Your task to perform on an android device: Open Android settings Image 0: 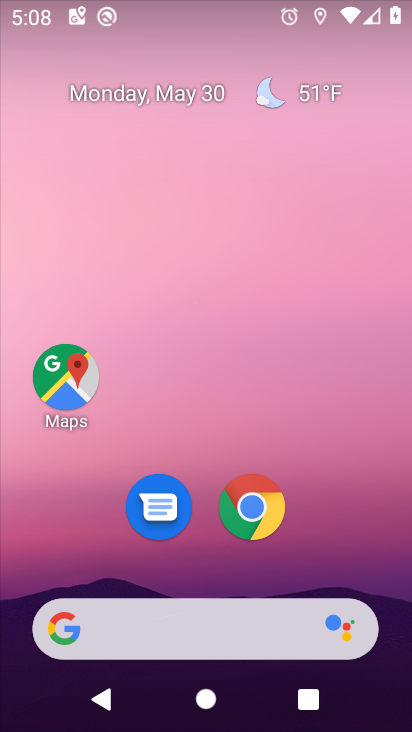
Step 0: press home button
Your task to perform on an android device: Open Android settings Image 1: 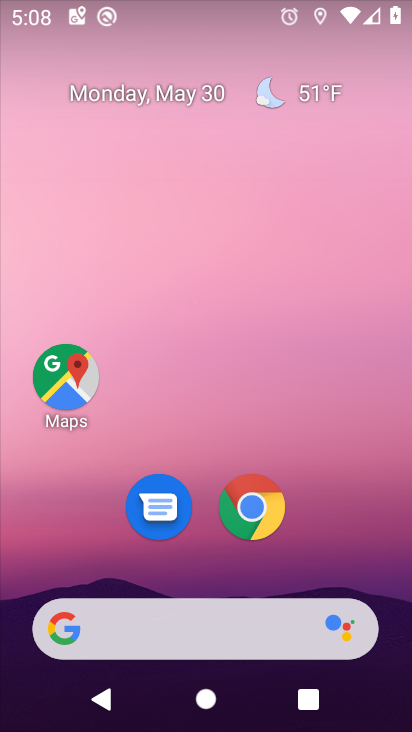
Step 1: drag from (341, 541) to (341, 169)
Your task to perform on an android device: Open Android settings Image 2: 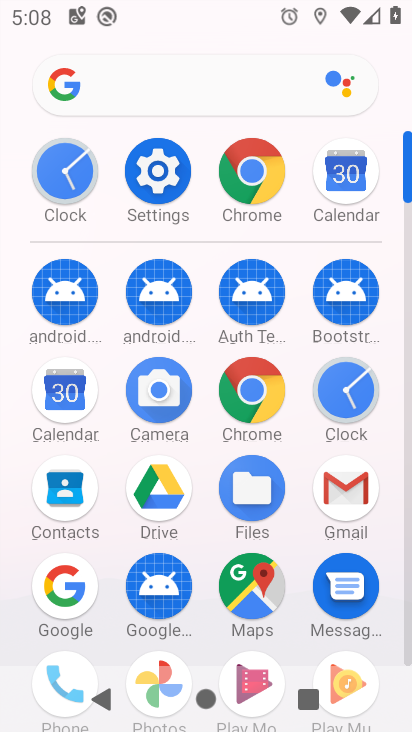
Step 2: click (172, 181)
Your task to perform on an android device: Open Android settings Image 3: 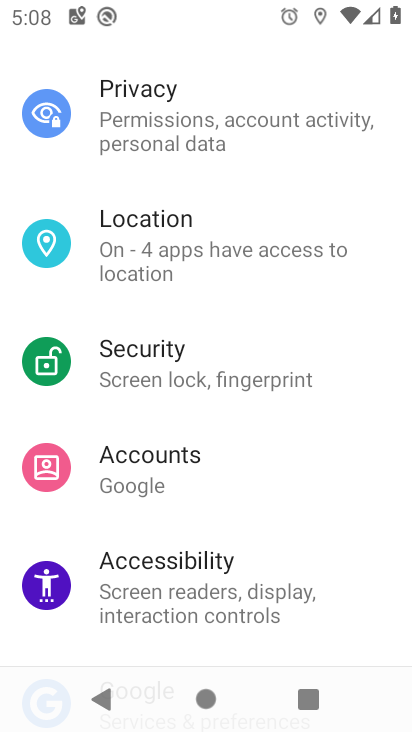
Step 3: drag from (209, 599) to (247, 115)
Your task to perform on an android device: Open Android settings Image 4: 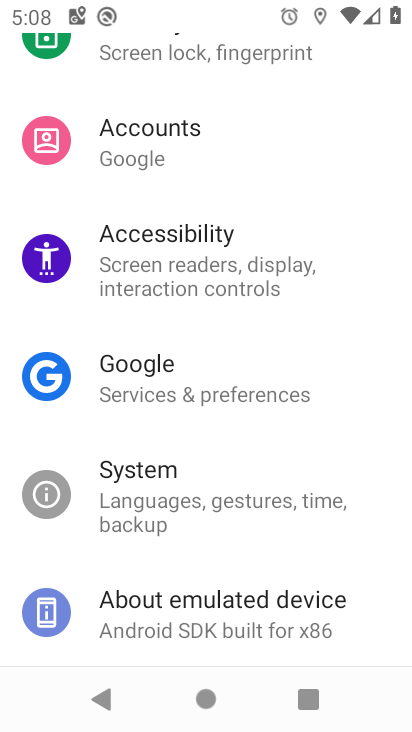
Step 4: click (217, 590)
Your task to perform on an android device: Open Android settings Image 5: 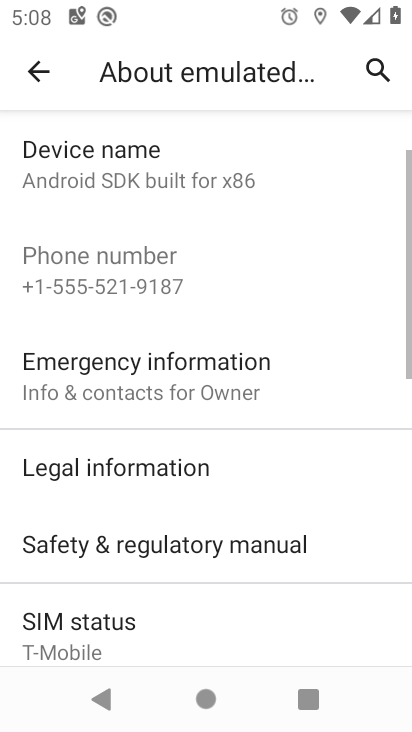
Step 5: drag from (217, 590) to (245, 247)
Your task to perform on an android device: Open Android settings Image 6: 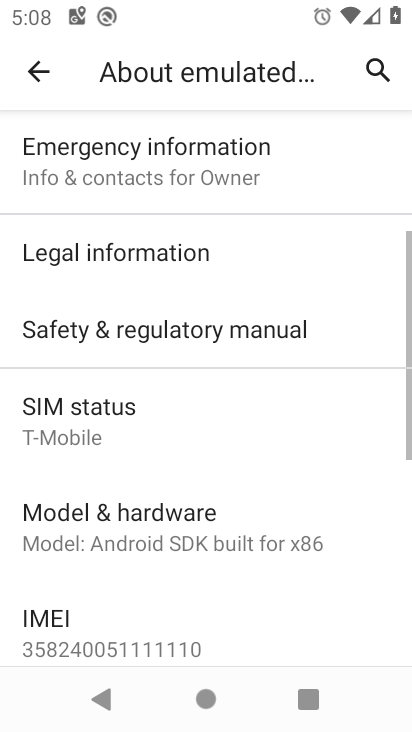
Step 6: drag from (185, 516) to (224, 184)
Your task to perform on an android device: Open Android settings Image 7: 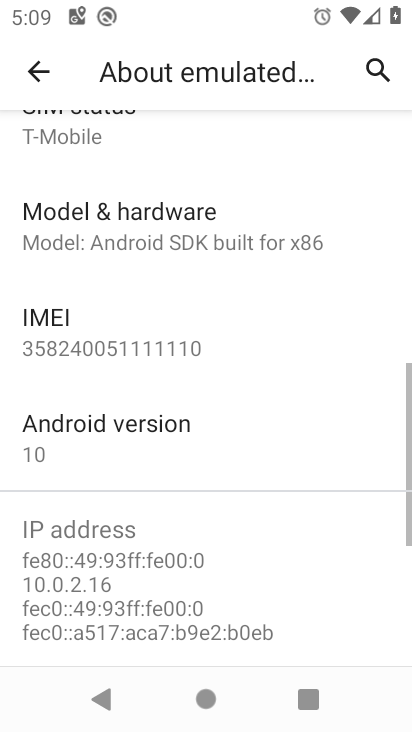
Step 7: click (202, 416)
Your task to perform on an android device: Open Android settings Image 8: 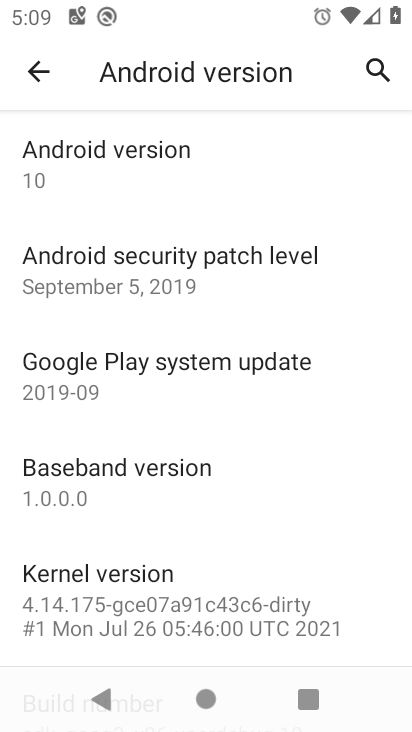
Step 8: task complete